Your task to perform on an android device: manage bookmarks in the chrome app Image 0: 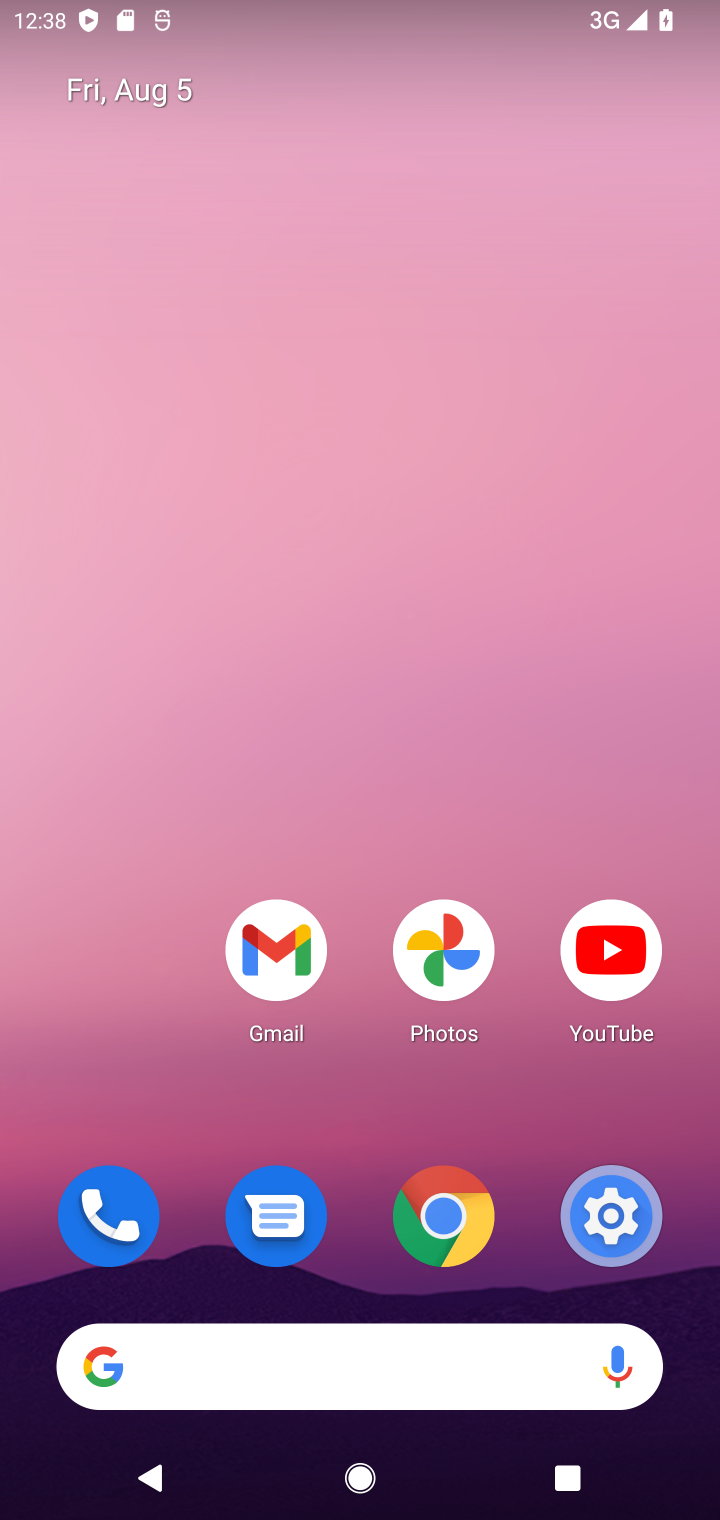
Step 0: press home button
Your task to perform on an android device: manage bookmarks in the chrome app Image 1: 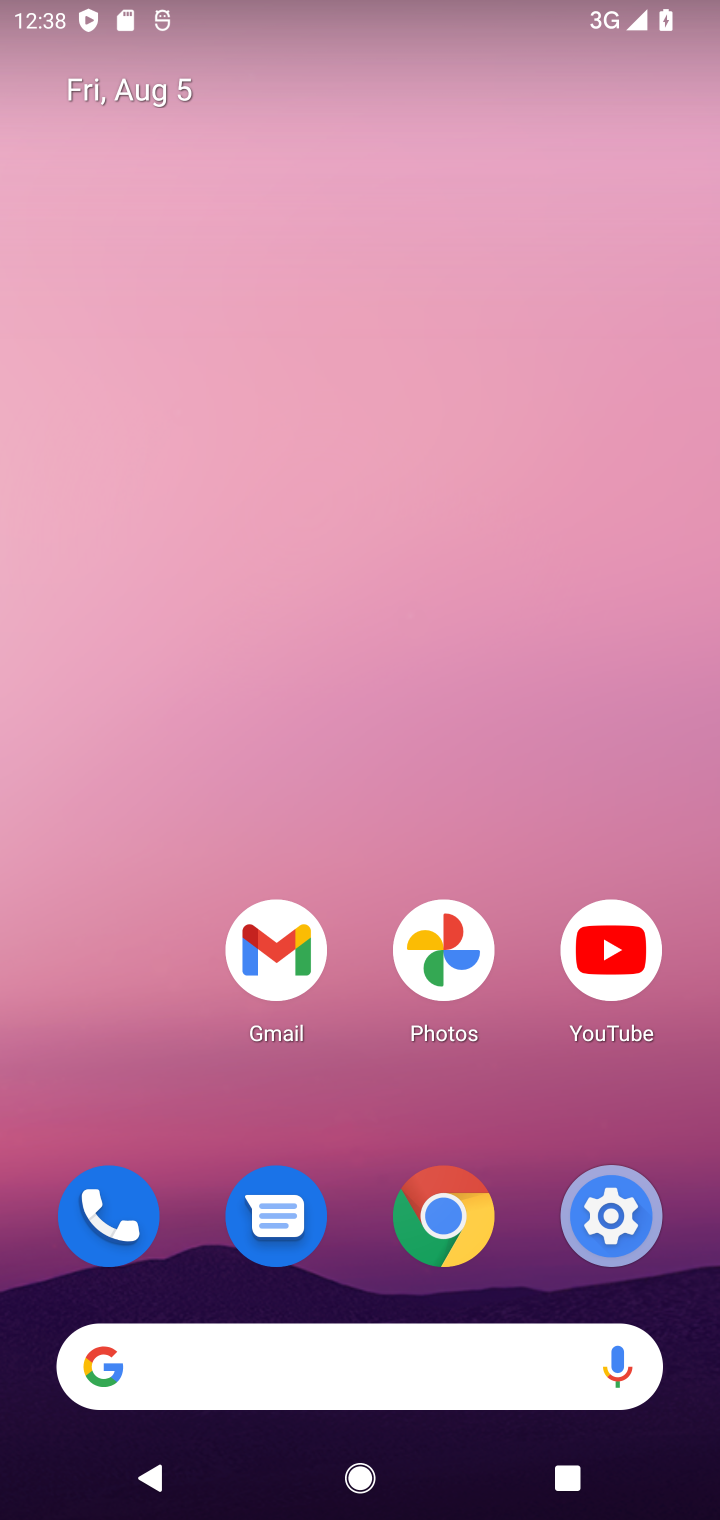
Step 1: drag from (464, 1396) to (435, 192)
Your task to perform on an android device: manage bookmarks in the chrome app Image 2: 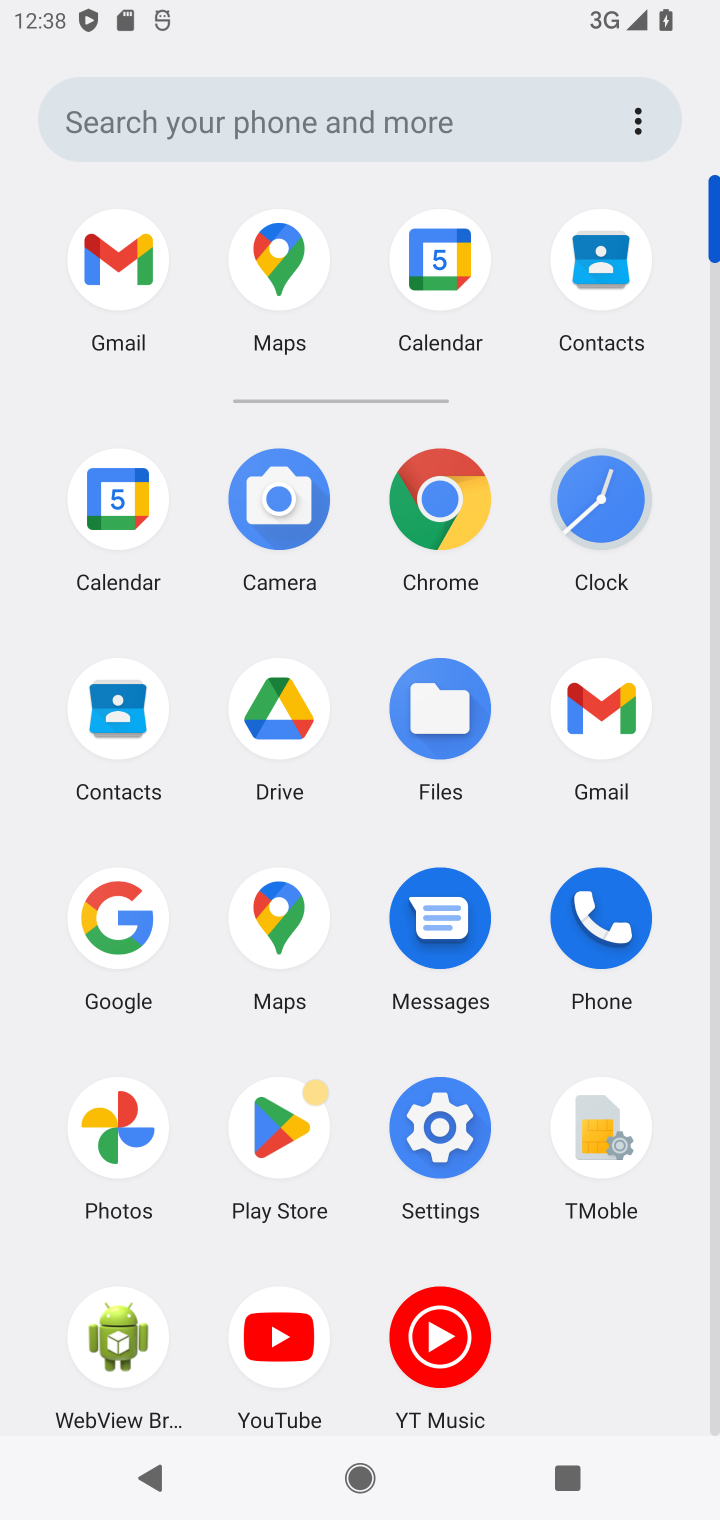
Step 2: click (419, 510)
Your task to perform on an android device: manage bookmarks in the chrome app Image 3: 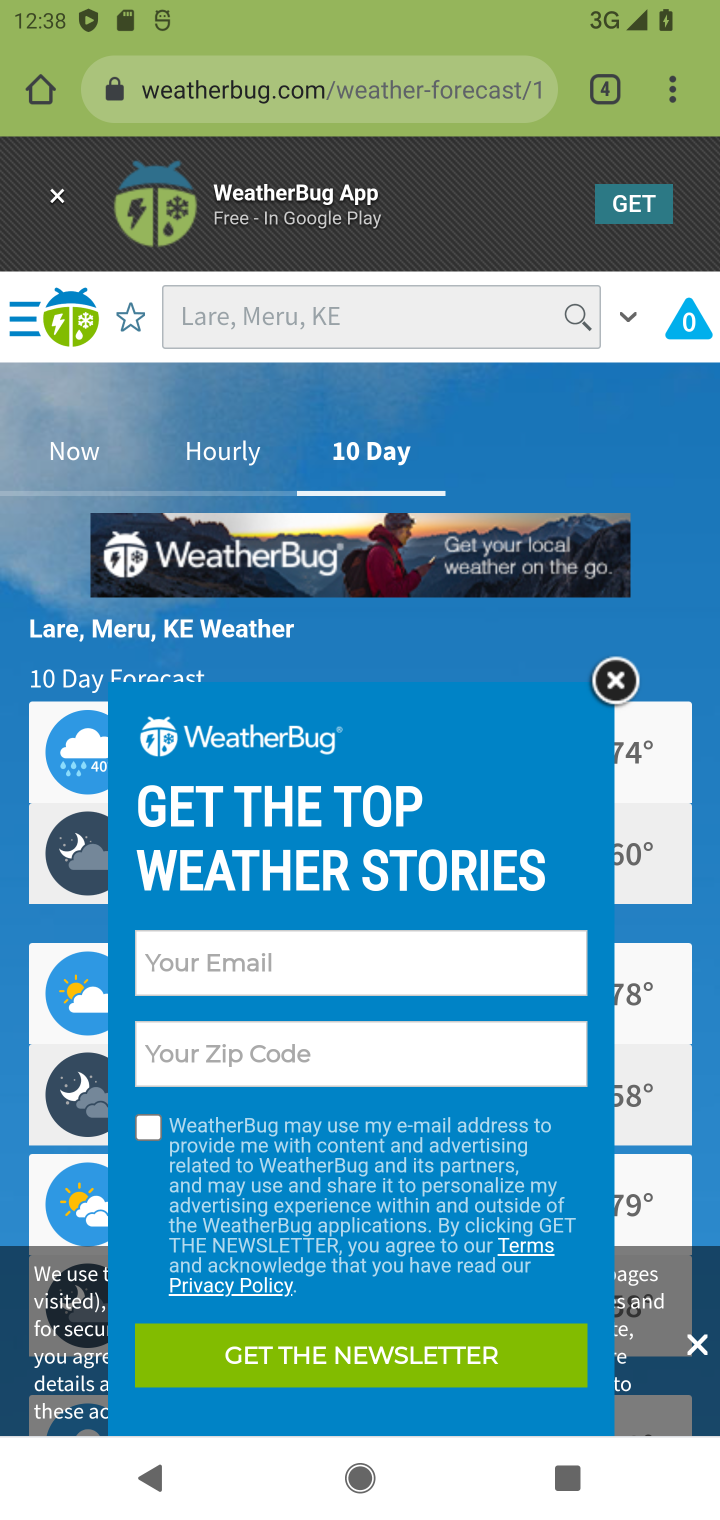
Step 3: click (419, 510)
Your task to perform on an android device: manage bookmarks in the chrome app Image 4: 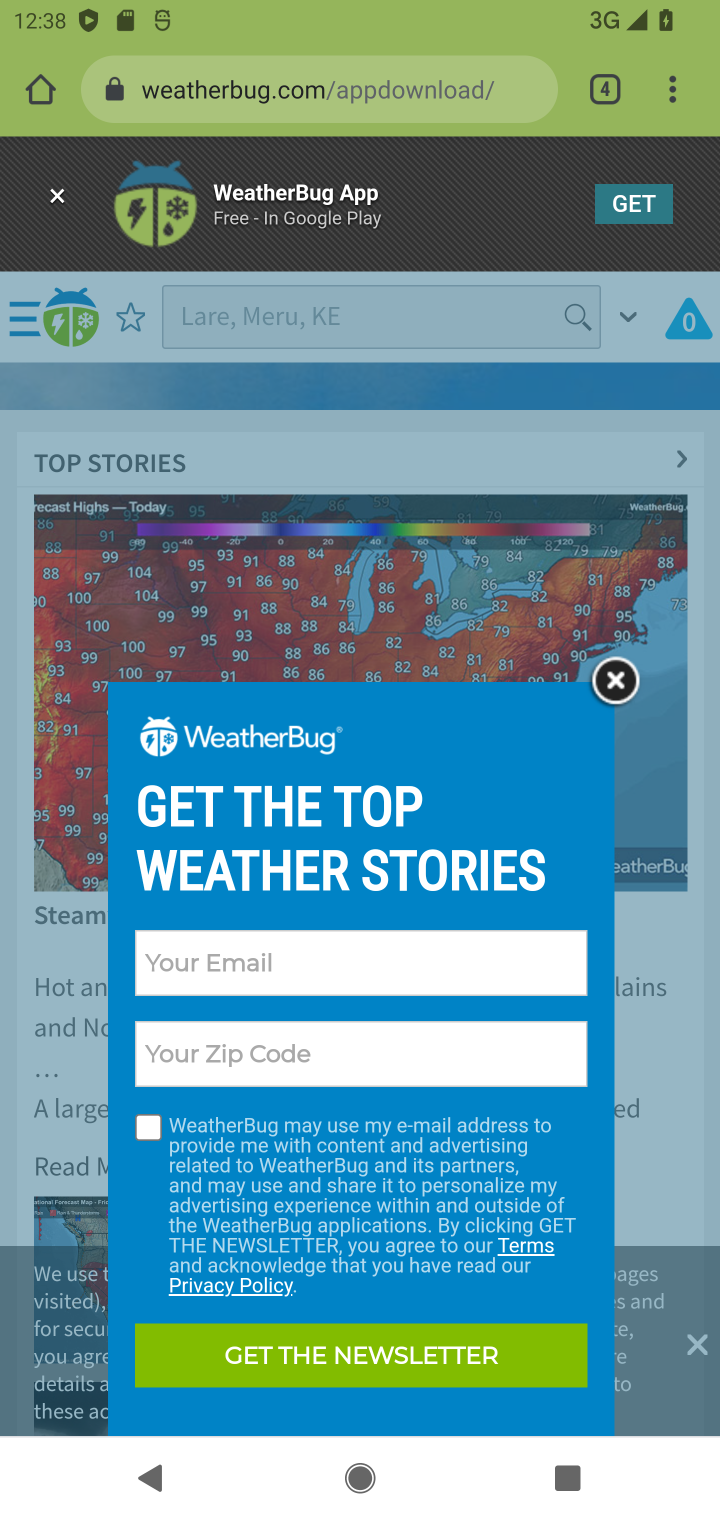
Step 4: click (675, 87)
Your task to perform on an android device: manage bookmarks in the chrome app Image 5: 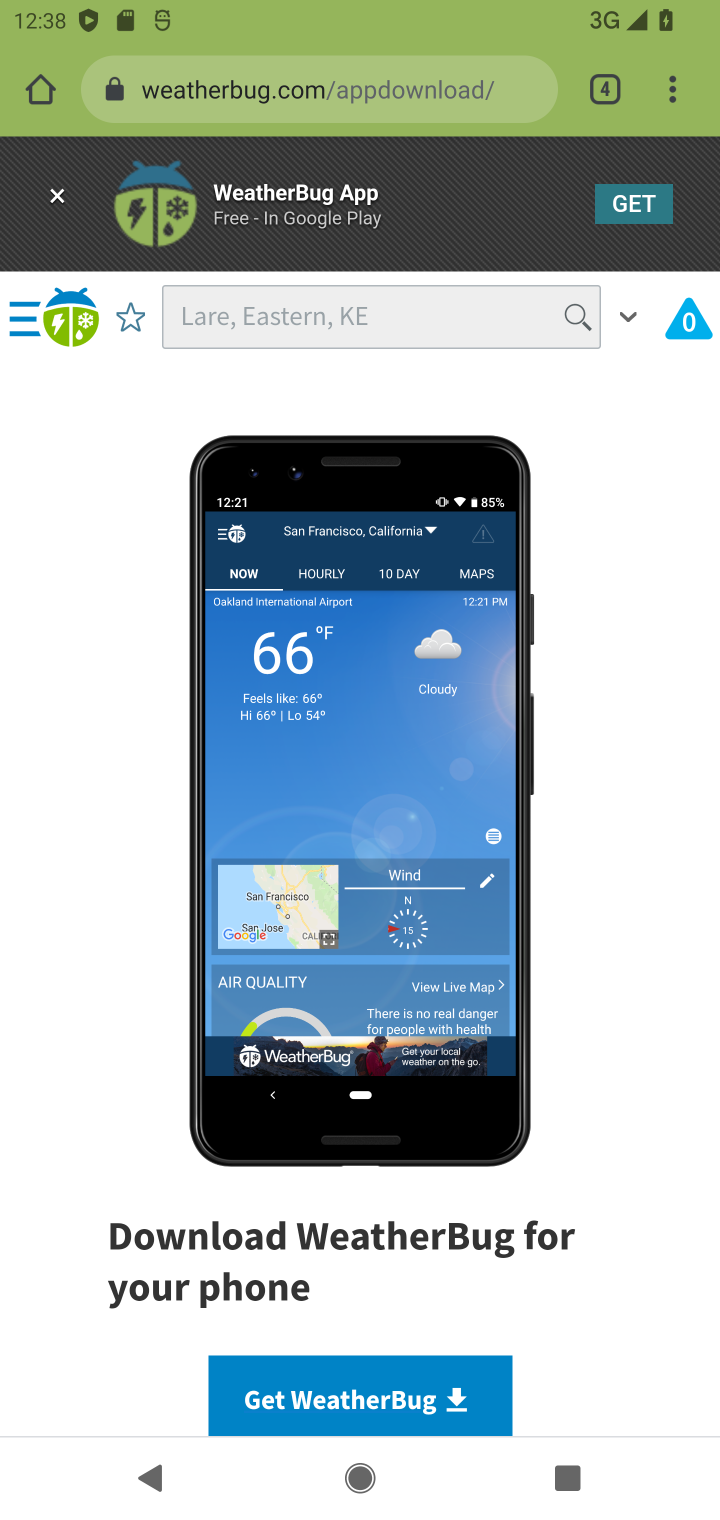
Step 5: click (675, 87)
Your task to perform on an android device: manage bookmarks in the chrome app Image 6: 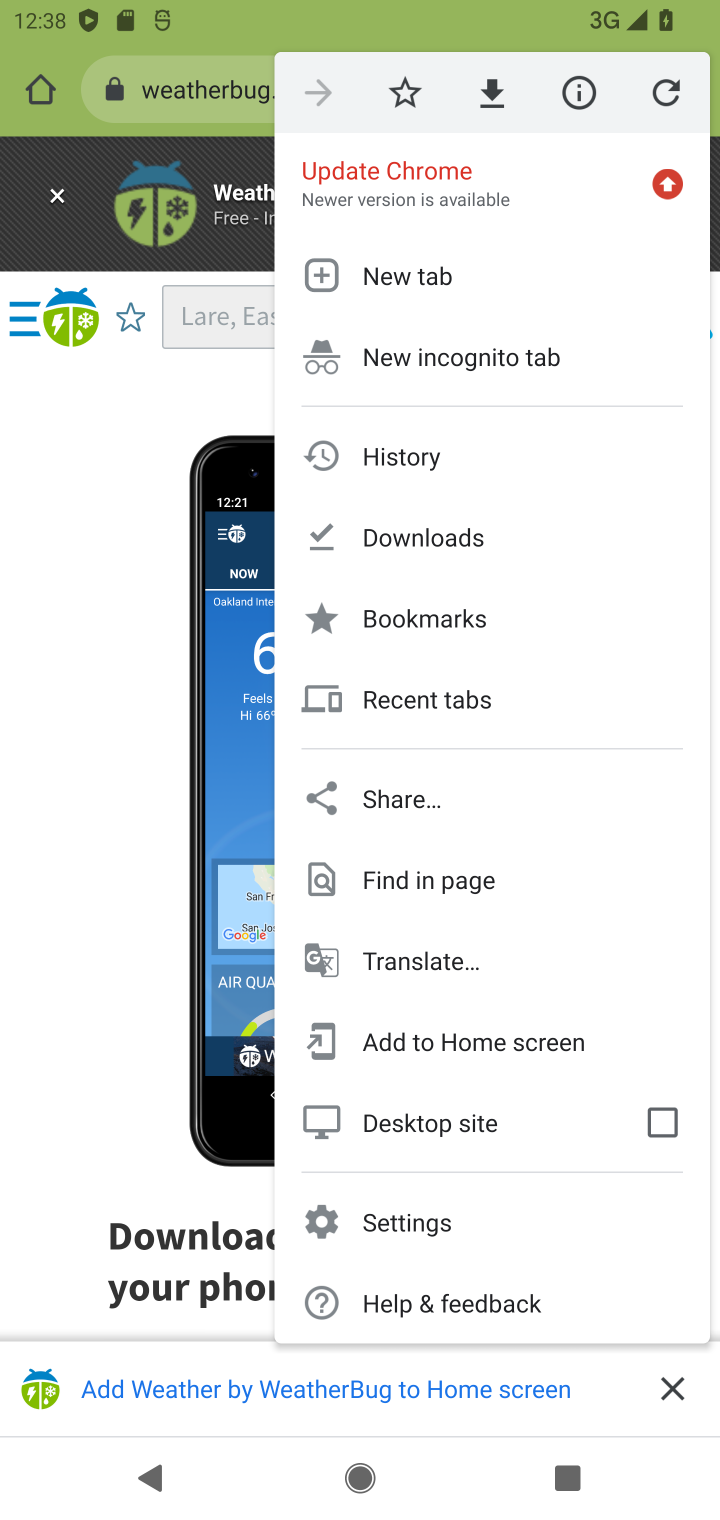
Step 6: click (391, 612)
Your task to perform on an android device: manage bookmarks in the chrome app Image 7: 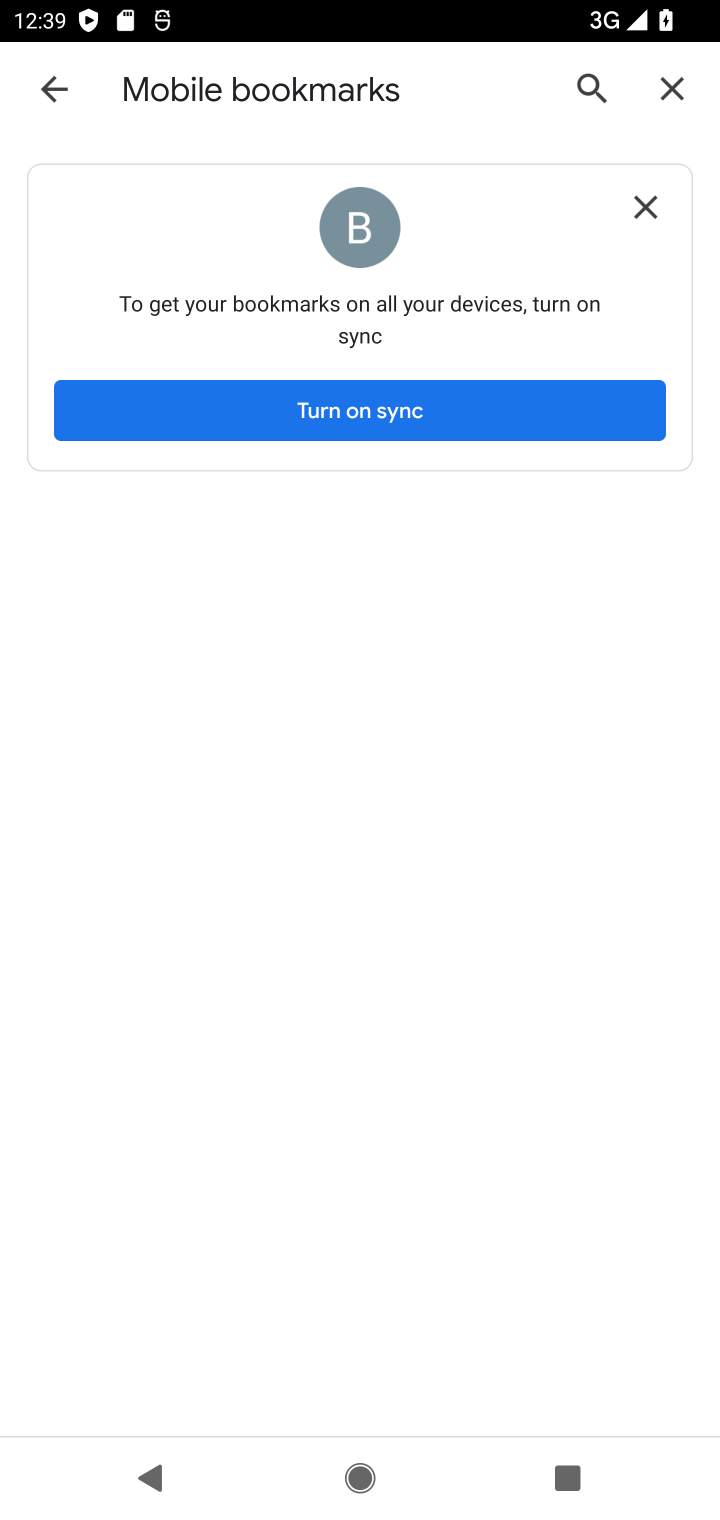
Step 7: task complete